Your task to perform on an android device: Play the last video I watched on Youtube Image 0: 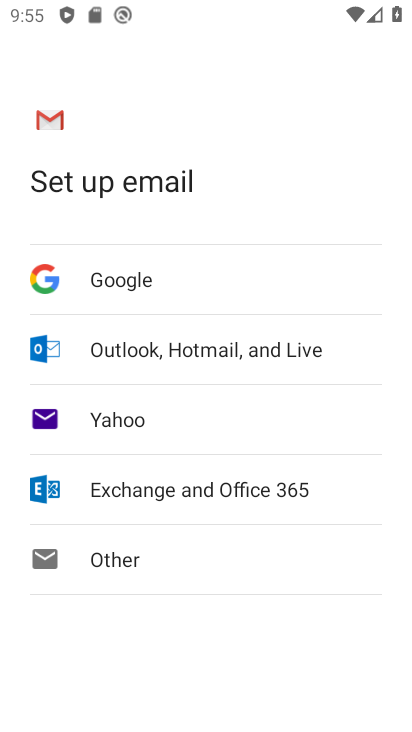
Step 0: press back button
Your task to perform on an android device: Play the last video I watched on Youtube Image 1: 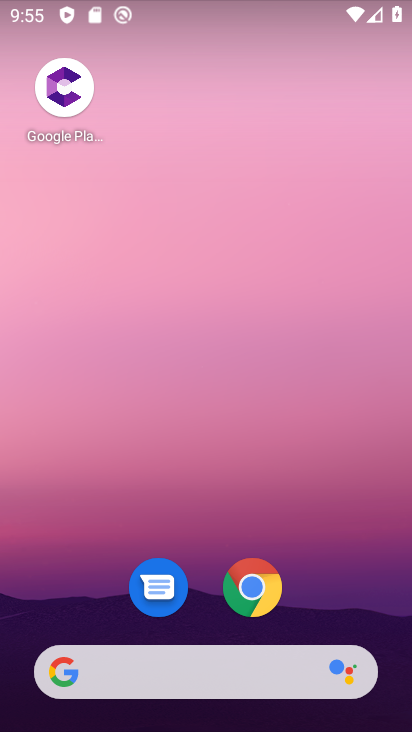
Step 1: drag from (317, 577) to (273, 21)
Your task to perform on an android device: Play the last video I watched on Youtube Image 2: 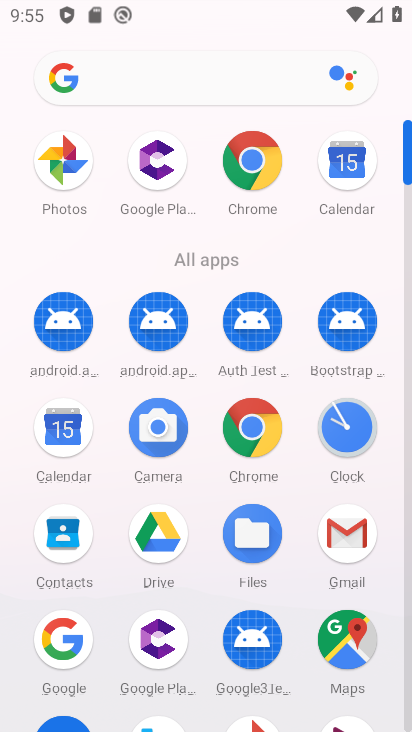
Step 2: drag from (4, 571) to (29, 179)
Your task to perform on an android device: Play the last video I watched on Youtube Image 3: 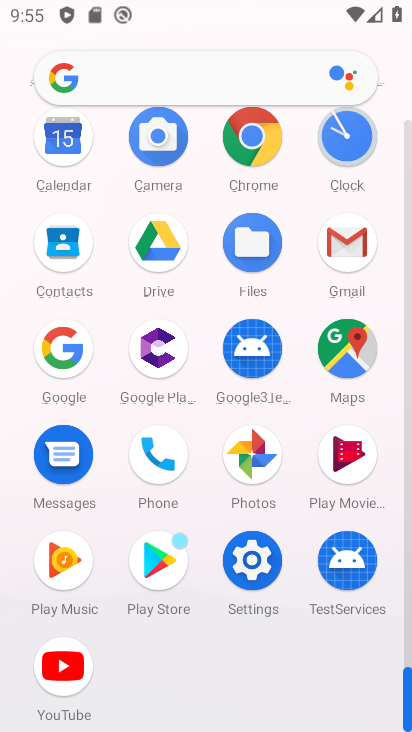
Step 3: click (65, 661)
Your task to perform on an android device: Play the last video I watched on Youtube Image 4: 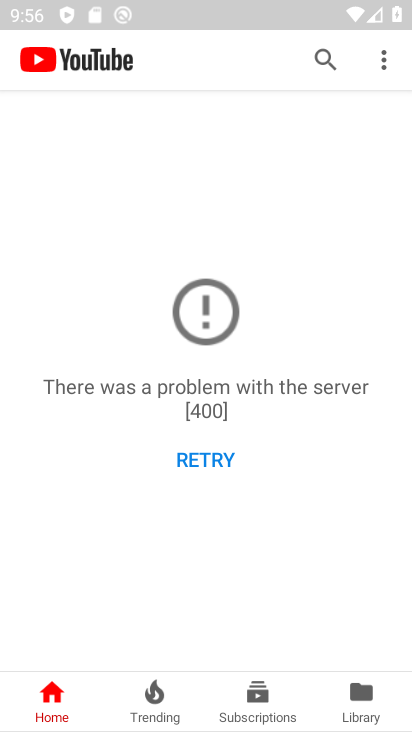
Step 4: click (362, 691)
Your task to perform on an android device: Play the last video I watched on Youtube Image 5: 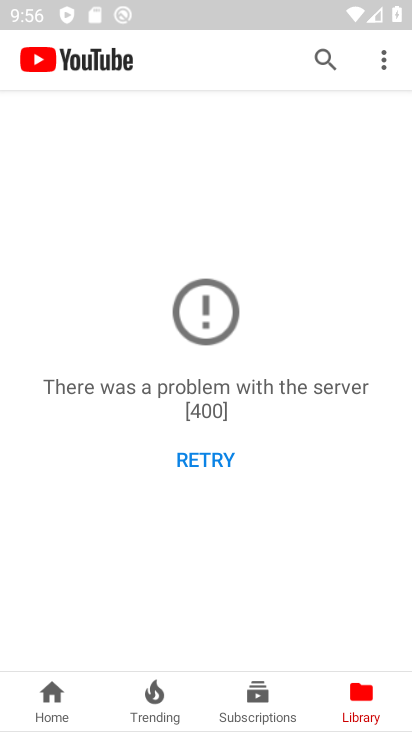
Step 5: task complete